Your task to perform on an android device: Go to Yahoo.com Image 0: 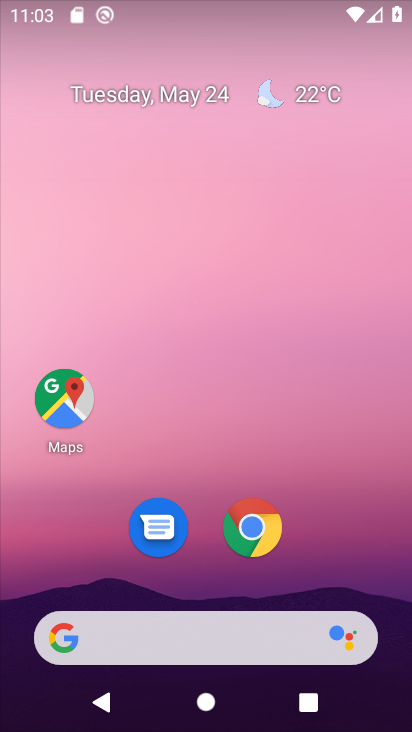
Step 0: press home button
Your task to perform on an android device: Go to Yahoo.com Image 1: 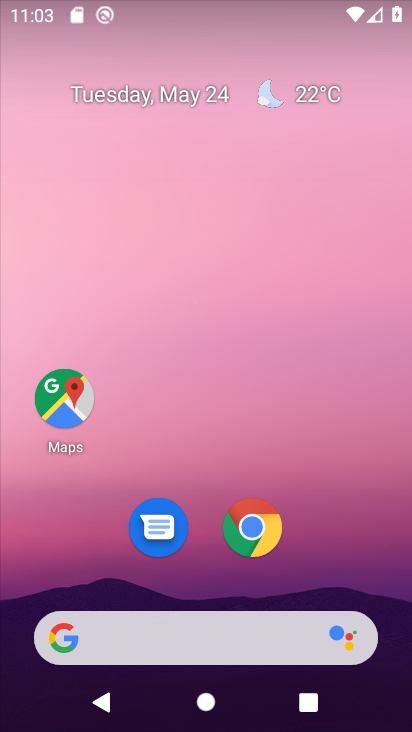
Step 1: click (255, 540)
Your task to perform on an android device: Go to Yahoo.com Image 2: 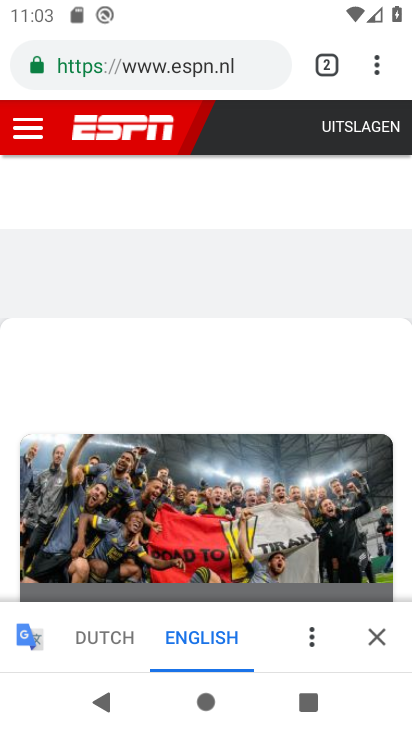
Step 2: drag from (372, 66) to (306, 127)
Your task to perform on an android device: Go to Yahoo.com Image 3: 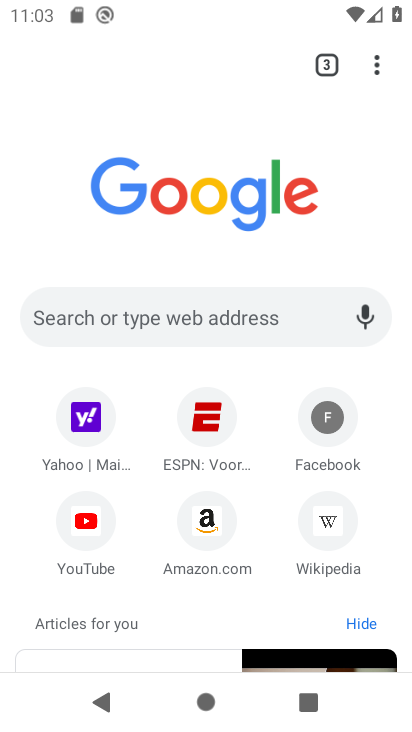
Step 3: click (88, 424)
Your task to perform on an android device: Go to Yahoo.com Image 4: 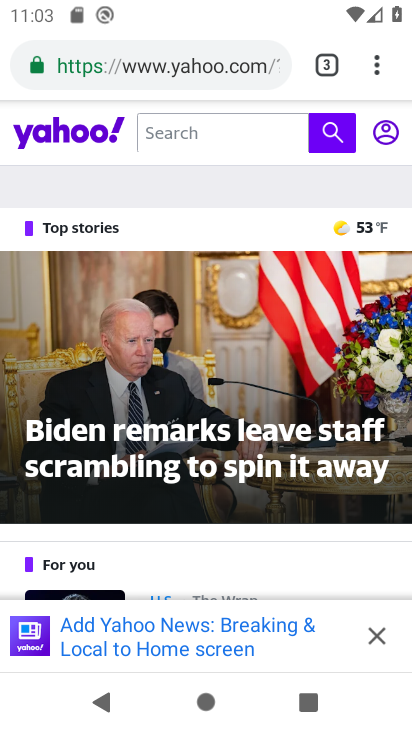
Step 4: task complete